Your task to perform on an android device: Go to network settings Image 0: 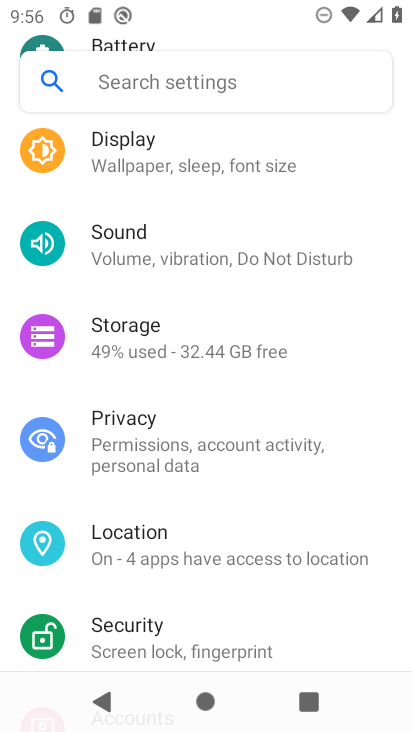
Step 0: drag from (227, 162) to (247, 572)
Your task to perform on an android device: Go to network settings Image 1: 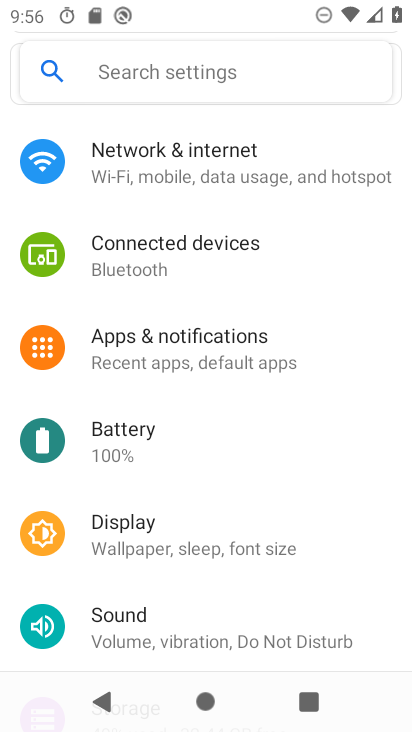
Step 1: click (200, 165)
Your task to perform on an android device: Go to network settings Image 2: 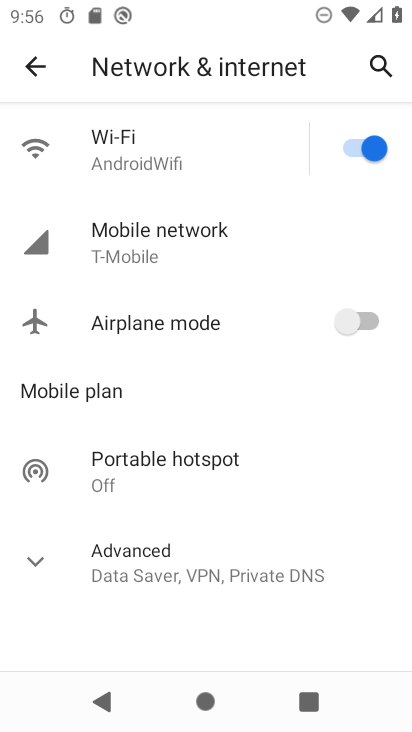
Step 2: task complete